Your task to perform on an android device: open app "Google Play Music" Image 0: 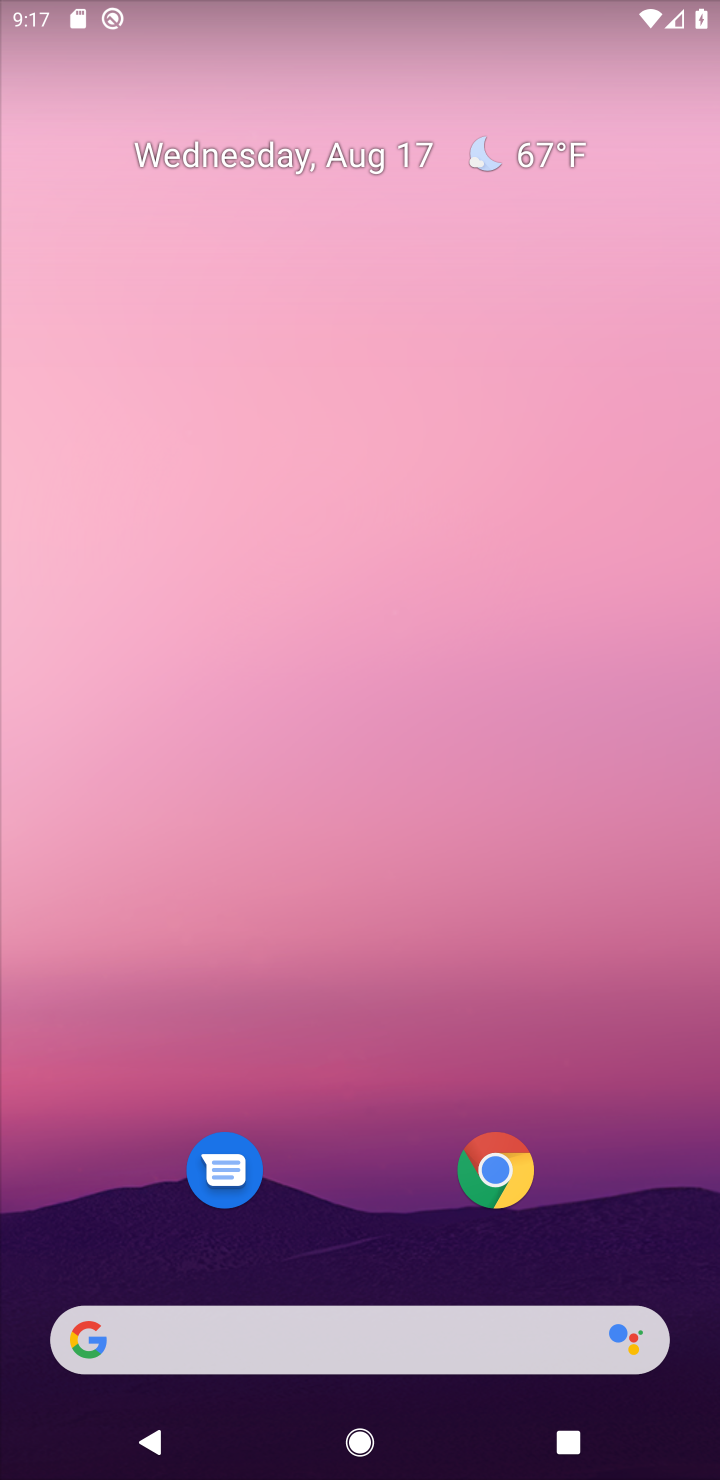
Step 0: drag from (414, 1310) to (269, 5)
Your task to perform on an android device: open app "Google Play Music" Image 1: 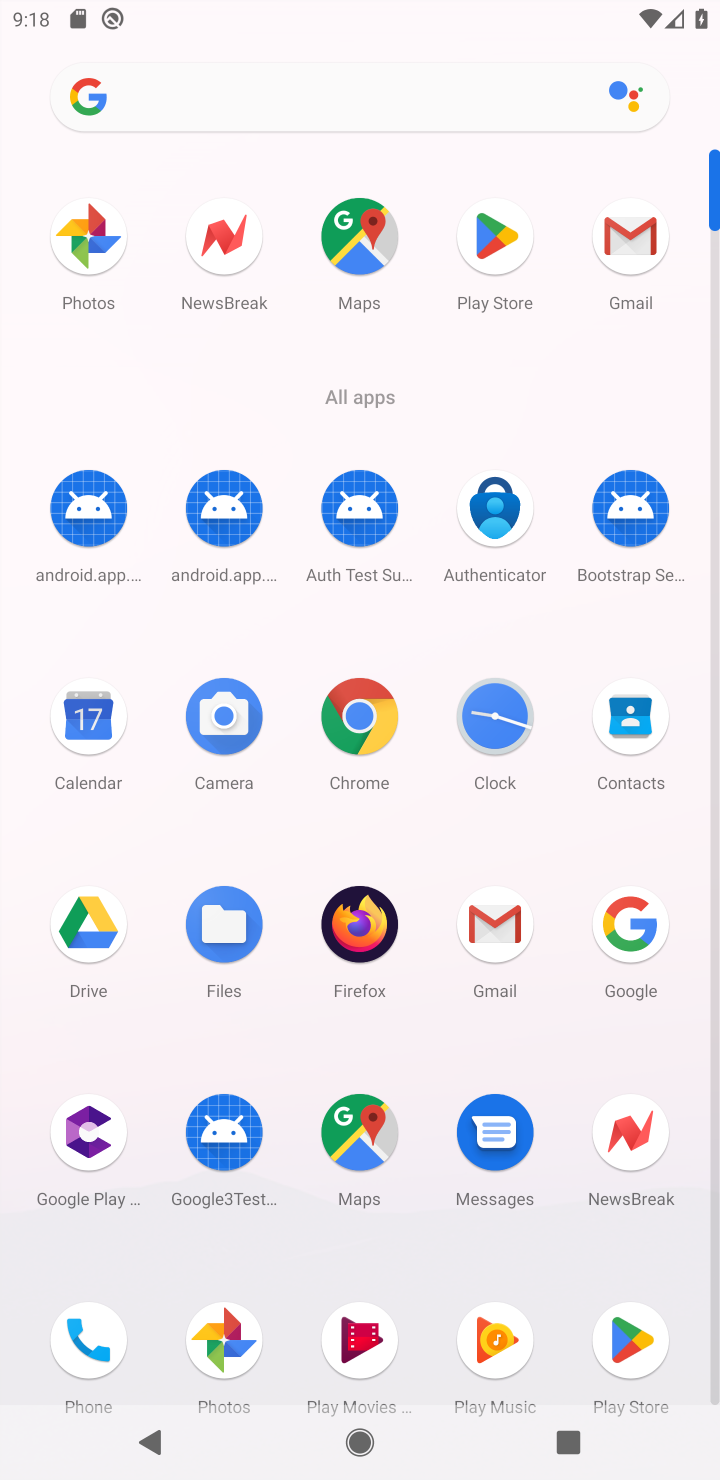
Step 1: click (643, 1354)
Your task to perform on an android device: open app "Google Play Music" Image 2: 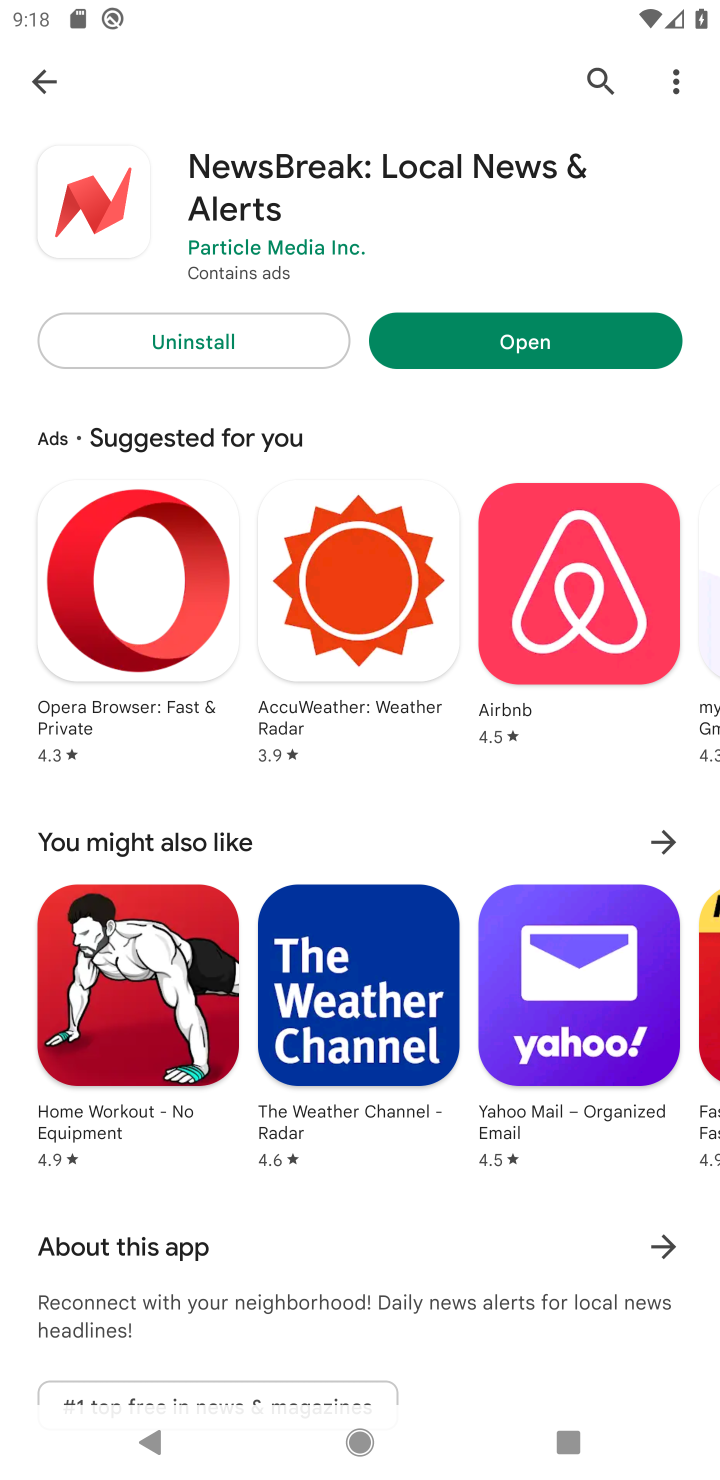
Step 2: click (31, 84)
Your task to perform on an android device: open app "Google Play Music" Image 3: 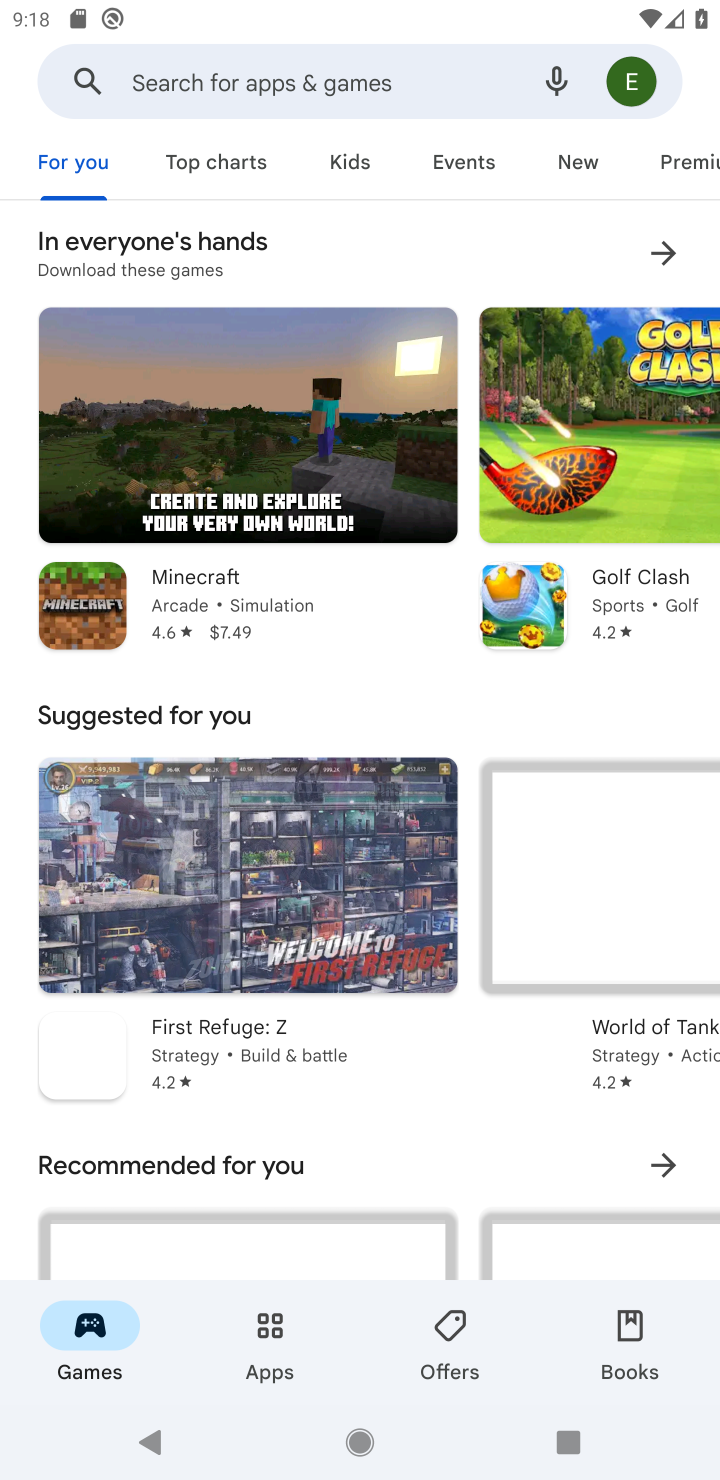
Step 3: click (147, 93)
Your task to perform on an android device: open app "Google Play Music" Image 4: 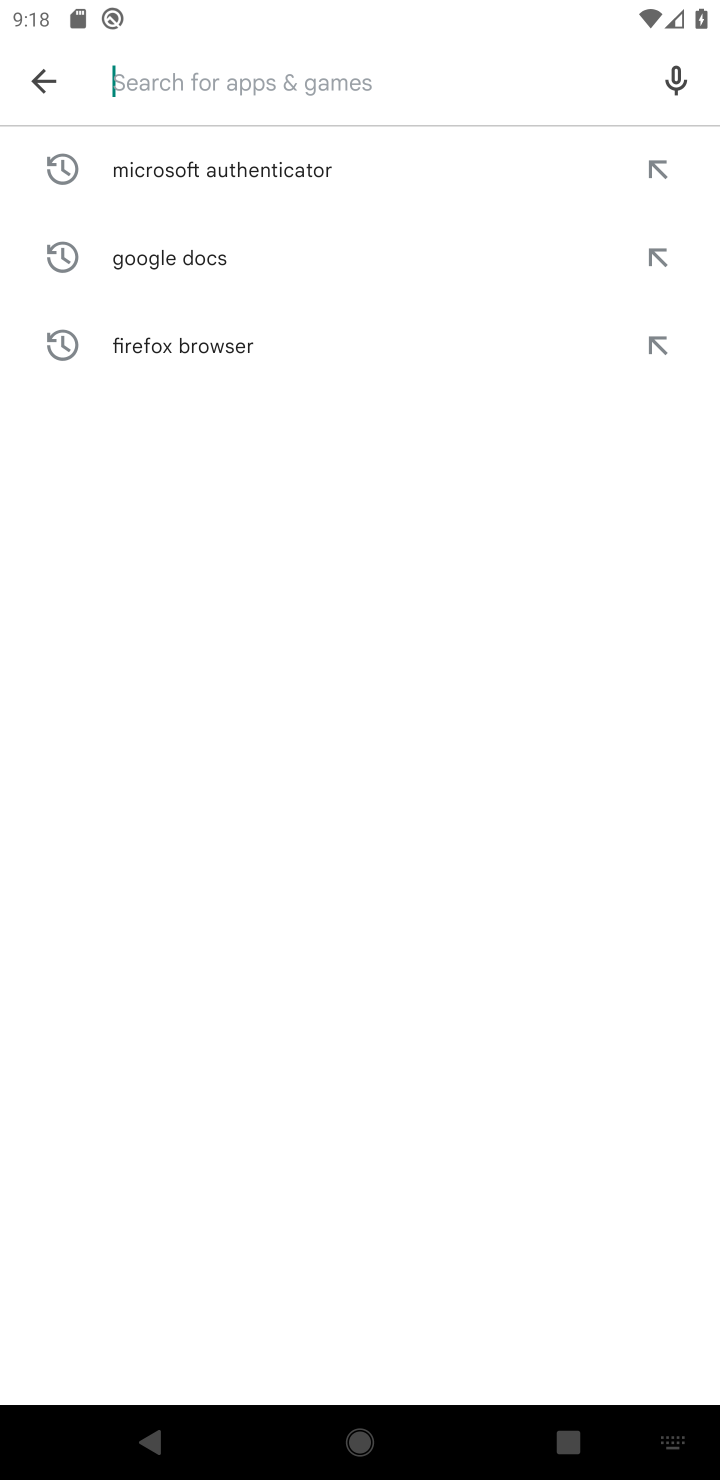
Step 4: type "Google Play Music"
Your task to perform on an android device: open app "Google Play Music" Image 5: 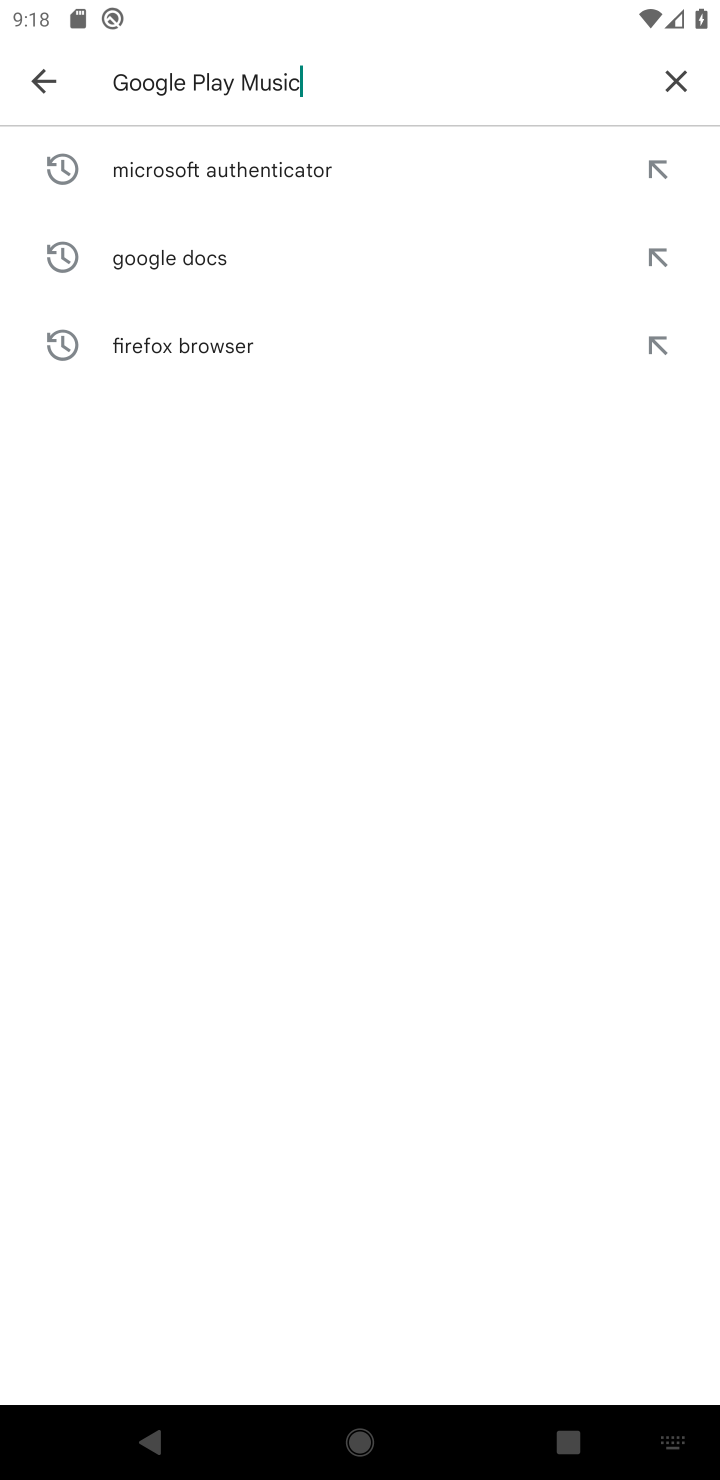
Step 5: type ""
Your task to perform on an android device: open app "Google Play Music" Image 6: 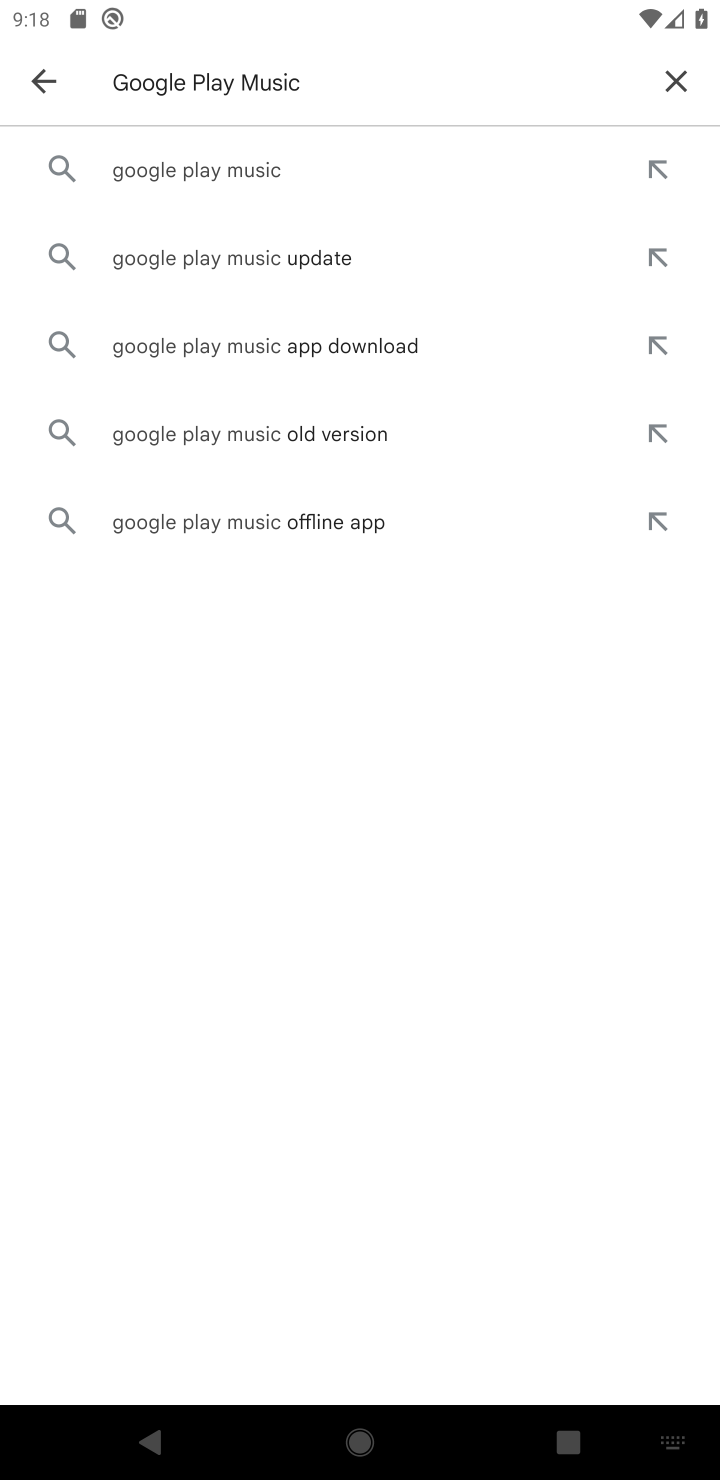
Step 6: click (100, 155)
Your task to perform on an android device: open app "Google Play Music" Image 7: 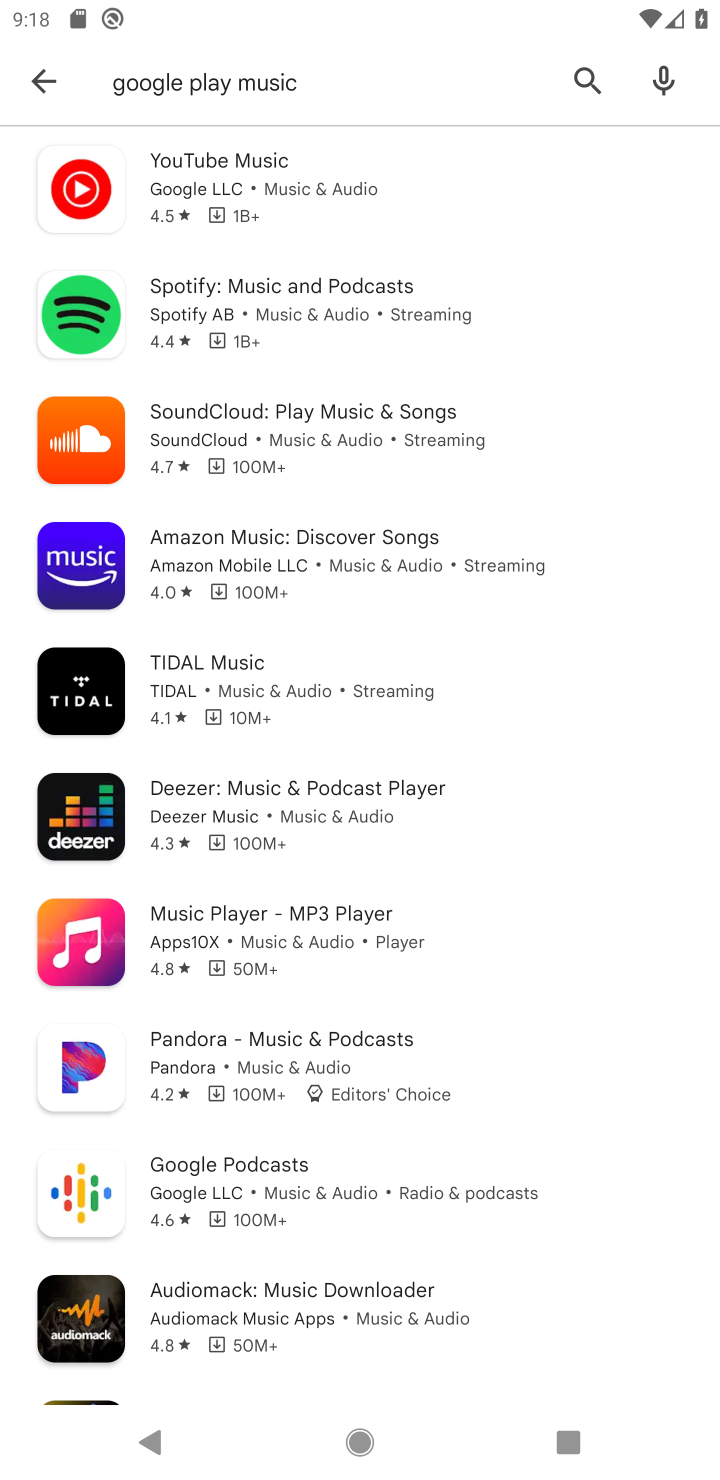
Step 7: task complete